Your task to perform on an android device: Do I have any events tomorrow? Image 0: 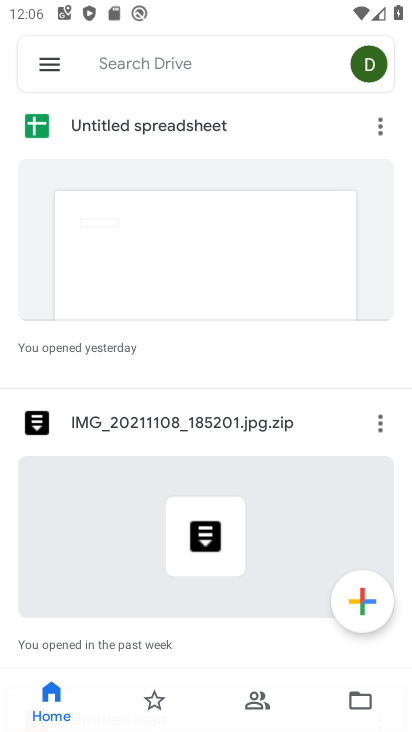
Step 0: press home button
Your task to perform on an android device: Do I have any events tomorrow? Image 1: 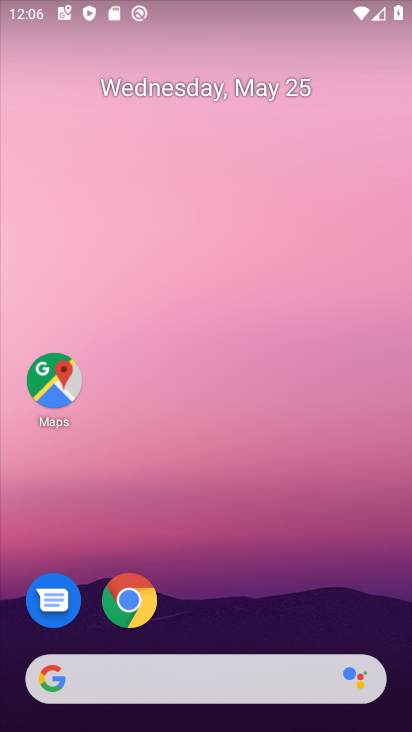
Step 1: drag from (254, 586) to (196, 147)
Your task to perform on an android device: Do I have any events tomorrow? Image 2: 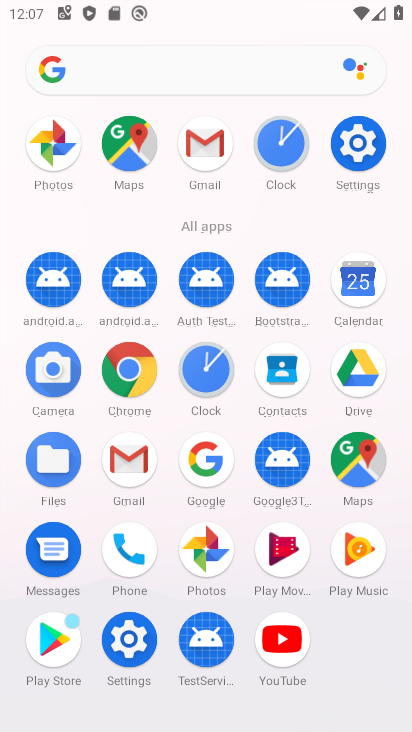
Step 2: click (367, 290)
Your task to perform on an android device: Do I have any events tomorrow? Image 3: 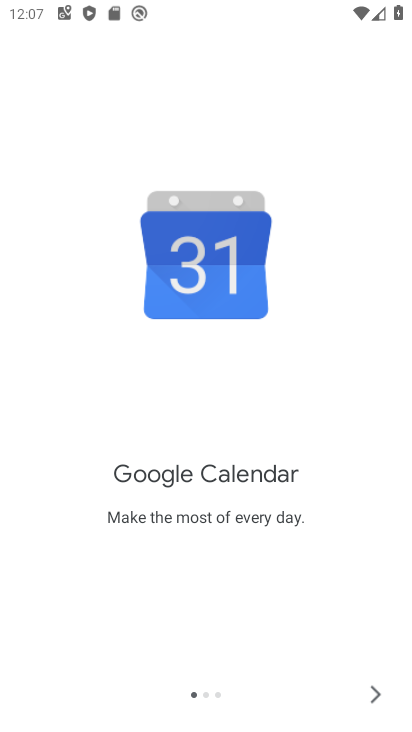
Step 3: click (382, 690)
Your task to perform on an android device: Do I have any events tomorrow? Image 4: 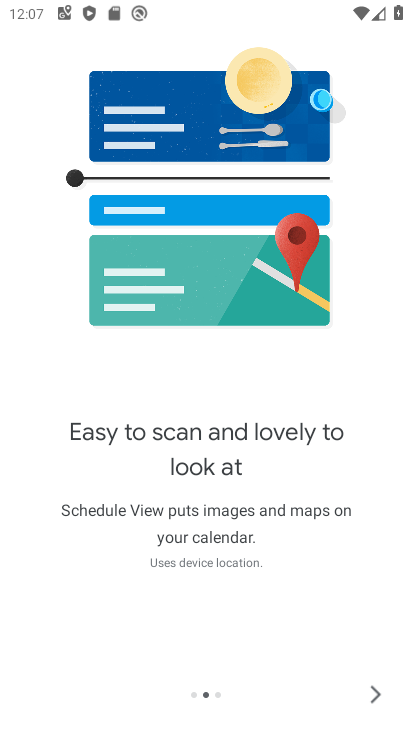
Step 4: click (381, 695)
Your task to perform on an android device: Do I have any events tomorrow? Image 5: 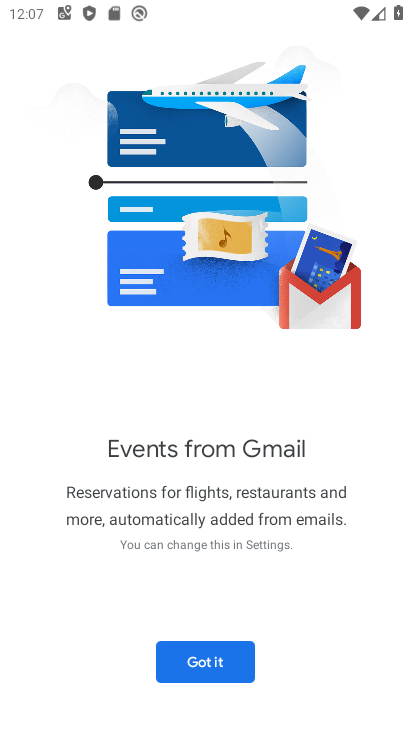
Step 5: click (228, 676)
Your task to perform on an android device: Do I have any events tomorrow? Image 6: 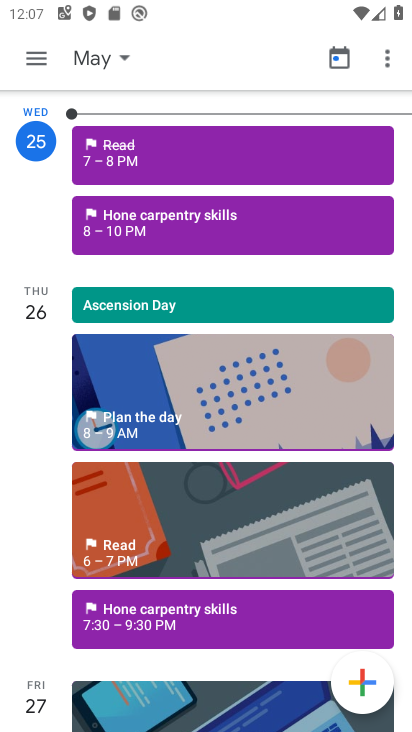
Step 6: click (113, 53)
Your task to perform on an android device: Do I have any events tomorrow? Image 7: 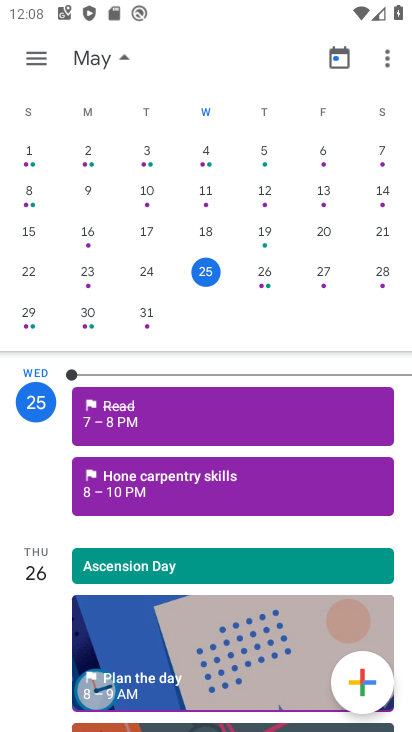
Step 7: click (246, 275)
Your task to perform on an android device: Do I have any events tomorrow? Image 8: 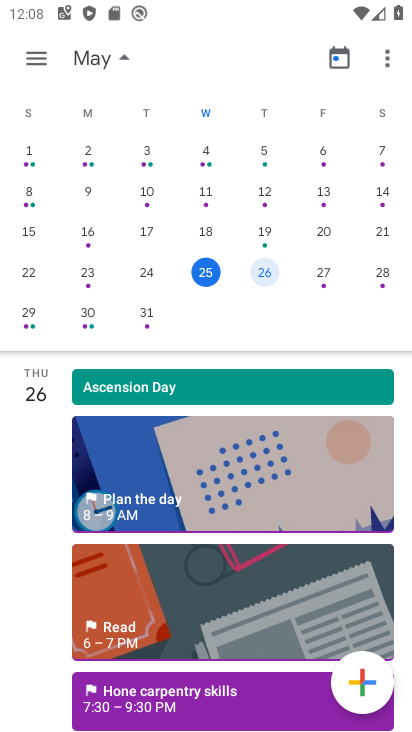
Step 8: task complete